Your task to perform on an android device: Open Google Maps Image 0: 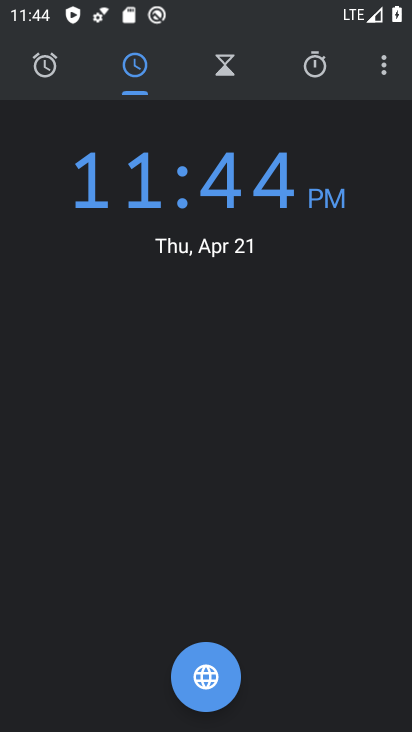
Step 0: press back button
Your task to perform on an android device: Open Google Maps Image 1: 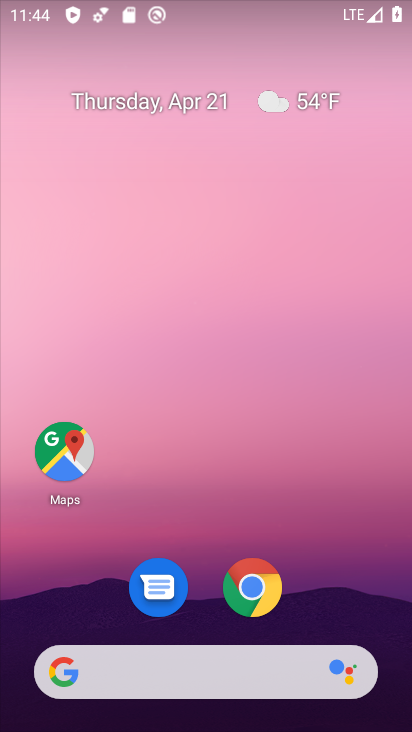
Step 1: click (63, 431)
Your task to perform on an android device: Open Google Maps Image 2: 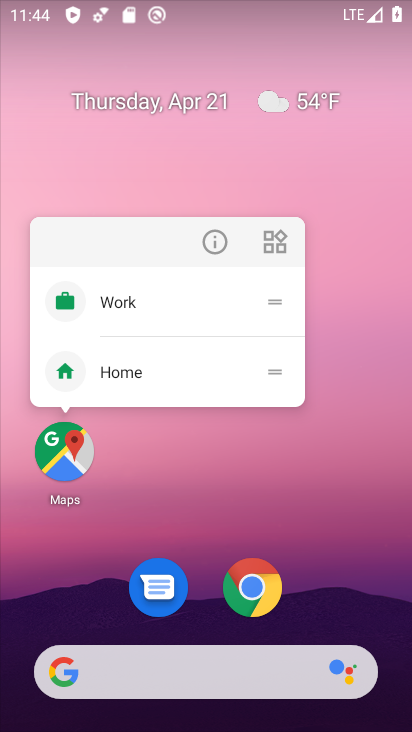
Step 2: click (65, 459)
Your task to perform on an android device: Open Google Maps Image 3: 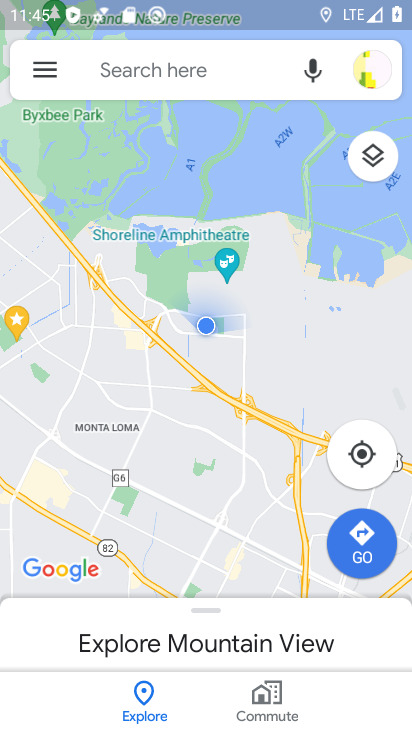
Step 3: task complete